Your task to perform on an android device: toggle notifications settings in the gmail app Image 0: 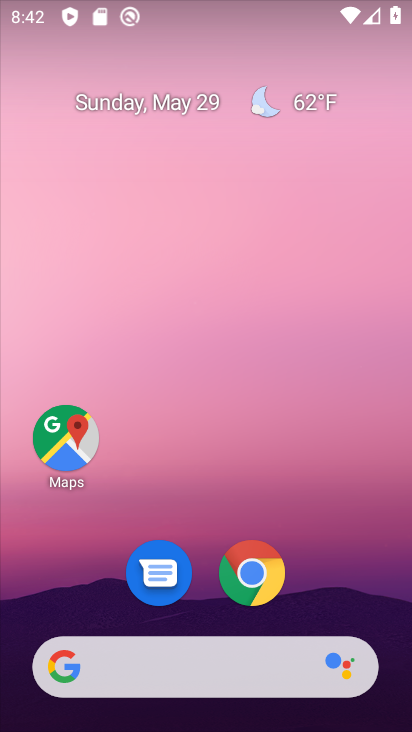
Step 0: drag from (347, 547) to (288, 101)
Your task to perform on an android device: toggle notifications settings in the gmail app Image 1: 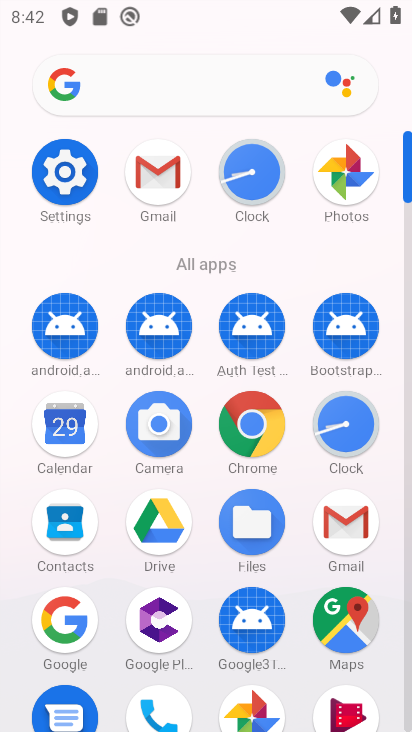
Step 1: click (156, 178)
Your task to perform on an android device: toggle notifications settings in the gmail app Image 2: 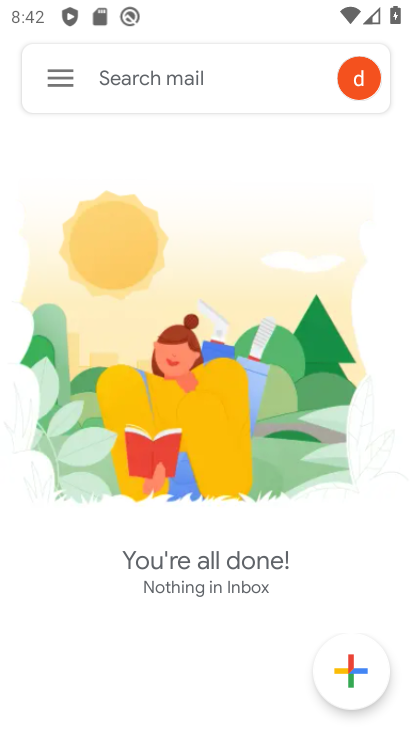
Step 2: click (60, 92)
Your task to perform on an android device: toggle notifications settings in the gmail app Image 3: 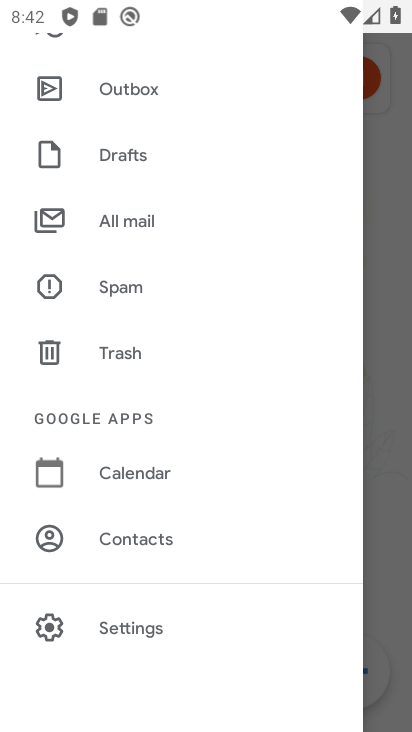
Step 3: drag from (256, 110) to (231, 599)
Your task to perform on an android device: toggle notifications settings in the gmail app Image 4: 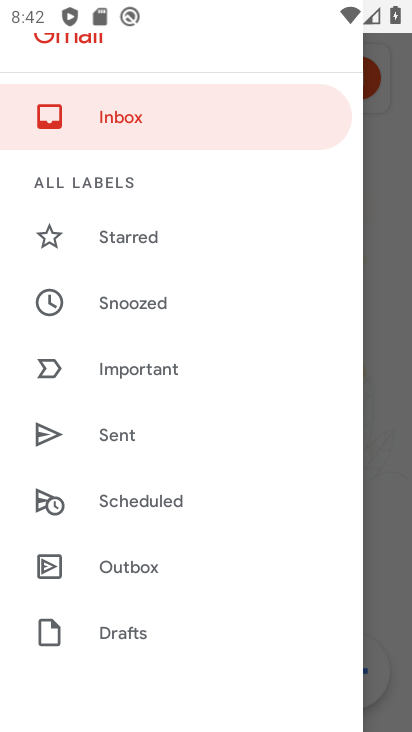
Step 4: drag from (264, 633) to (290, 65)
Your task to perform on an android device: toggle notifications settings in the gmail app Image 5: 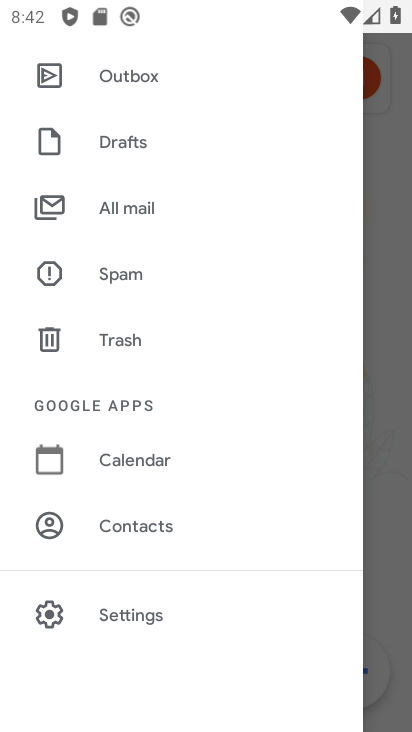
Step 5: click (138, 619)
Your task to perform on an android device: toggle notifications settings in the gmail app Image 6: 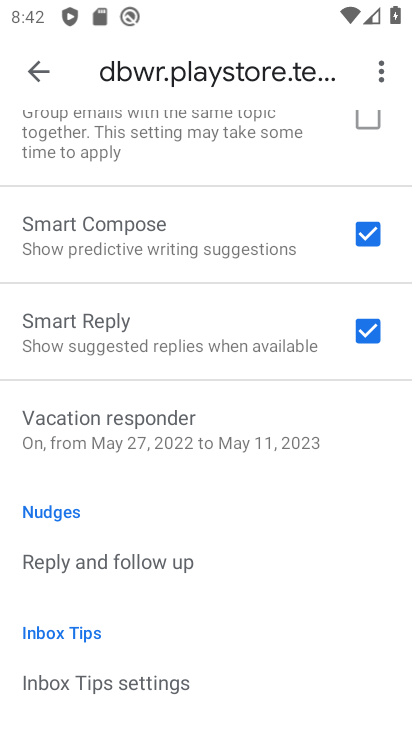
Step 6: drag from (205, 152) to (180, 602)
Your task to perform on an android device: toggle notifications settings in the gmail app Image 7: 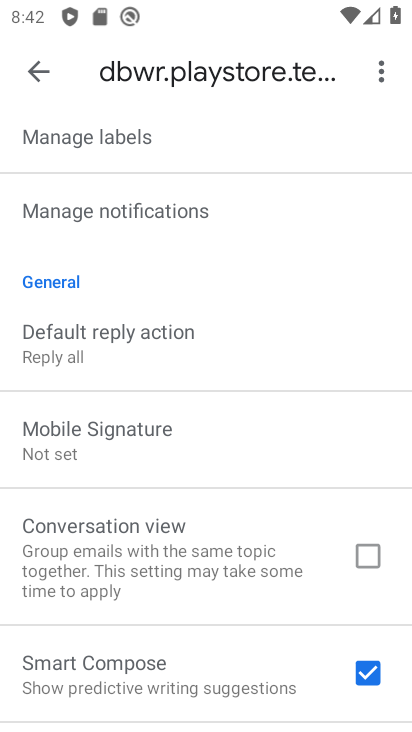
Step 7: click (93, 212)
Your task to perform on an android device: toggle notifications settings in the gmail app Image 8: 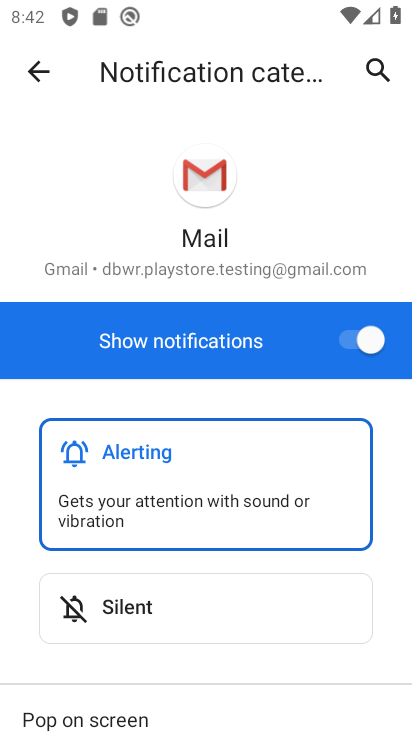
Step 8: click (343, 340)
Your task to perform on an android device: toggle notifications settings in the gmail app Image 9: 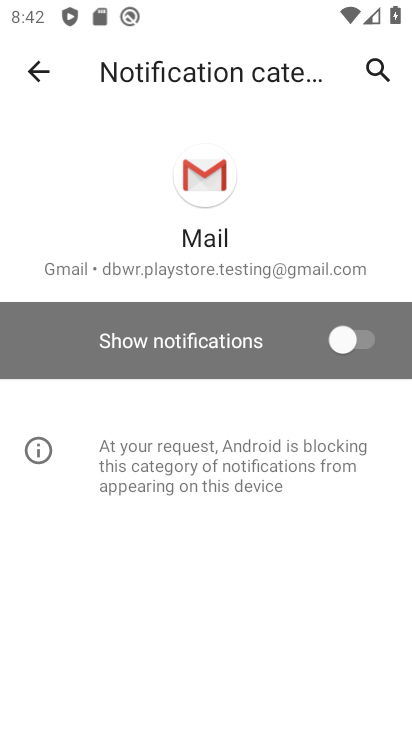
Step 9: task complete